Your task to perform on an android device: Search for Italian restaurants on Maps Image 0: 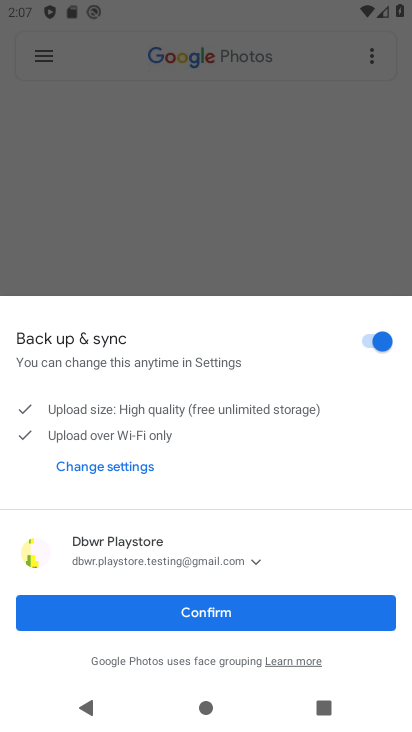
Step 0: press home button
Your task to perform on an android device: Search for Italian restaurants on Maps Image 1: 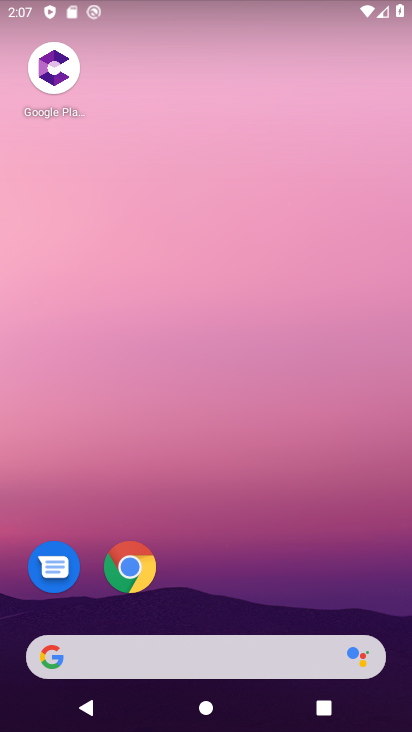
Step 1: drag from (229, 524) to (285, 99)
Your task to perform on an android device: Search for Italian restaurants on Maps Image 2: 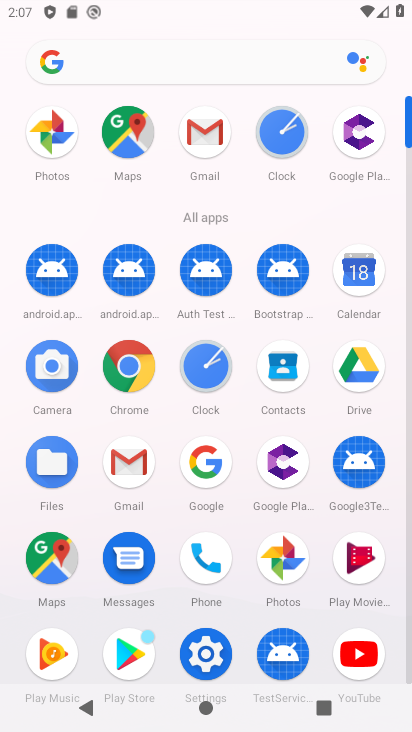
Step 2: click (63, 557)
Your task to perform on an android device: Search for Italian restaurants on Maps Image 3: 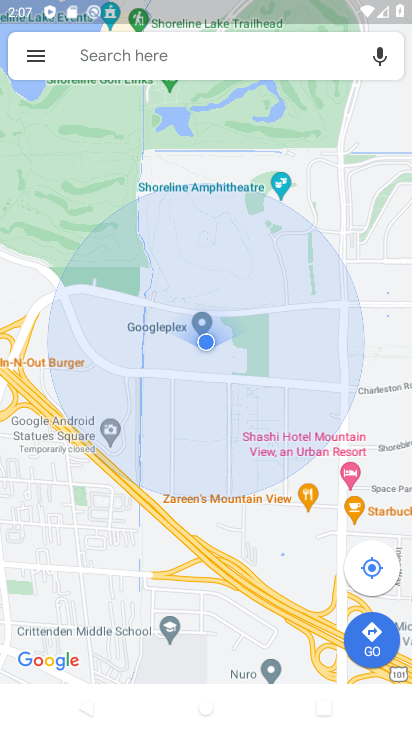
Step 3: click (198, 61)
Your task to perform on an android device: Search for Italian restaurants on Maps Image 4: 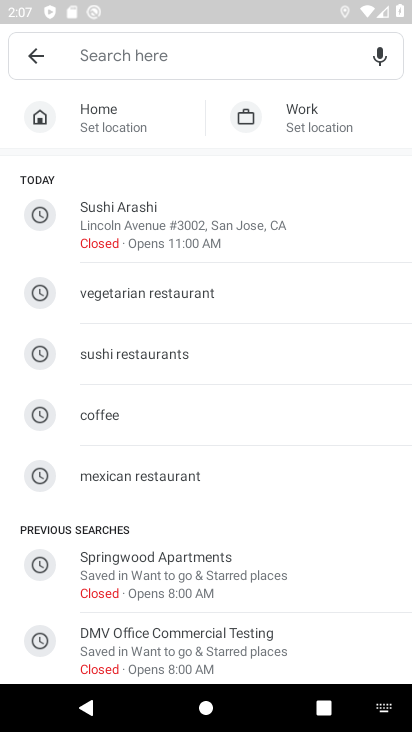
Step 4: type "italian restaurants"
Your task to perform on an android device: Search for Italian restaurants on Maps Image 5: 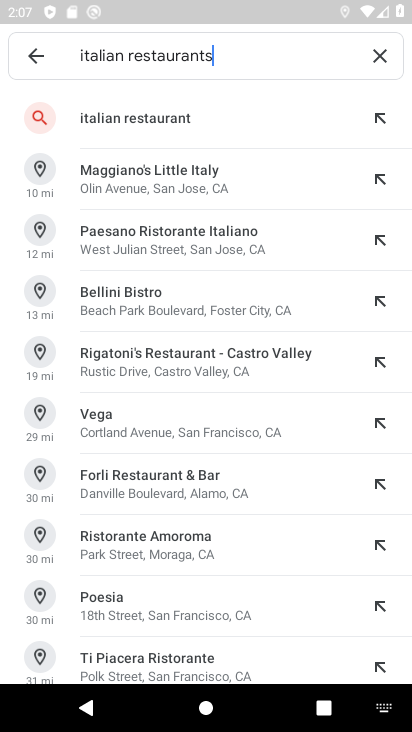
Step 5: click (199, 118)
Your task to perform on an android device: Search for Italian restaurants on Maps Image 6: 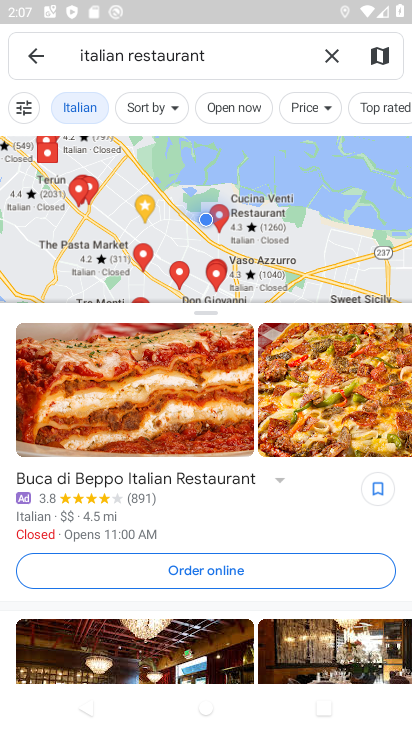
Step 6: task complete